Your task to perform on an android device: turn pop-ups on in chrome Image 0: 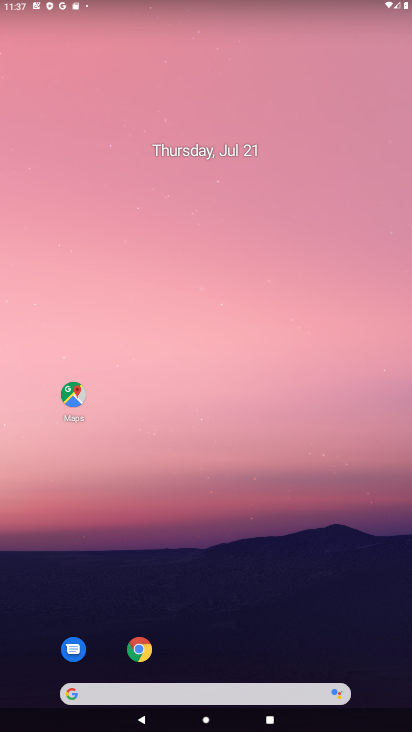
Step 0: click (136, 645)
Your task to perform on an android device: turn pop-ups on in chrome Image 1: 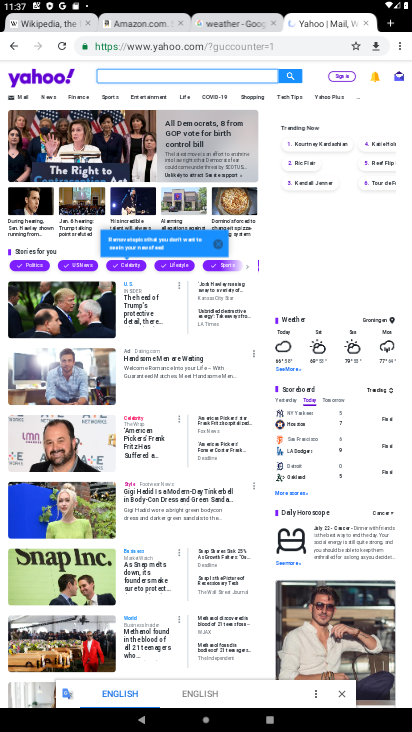
Step 1: click (401, 49)
Your task to perform on an android device: turn pop-ups on in chrome Image 2: 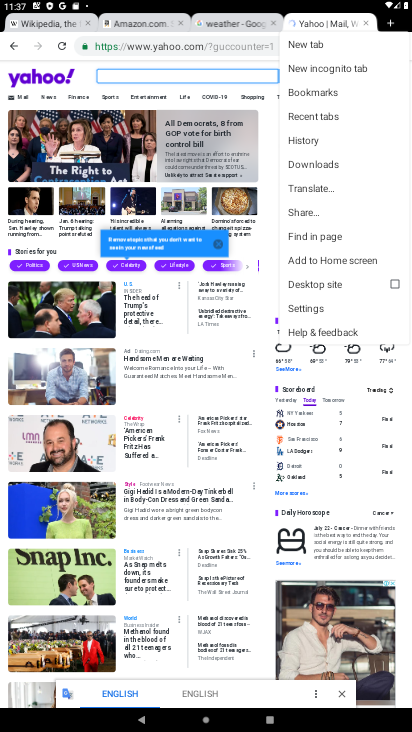
Step 2: click (305, 304)
Your task to perform on an android device: turn pop-ups on in chrome Image 3: 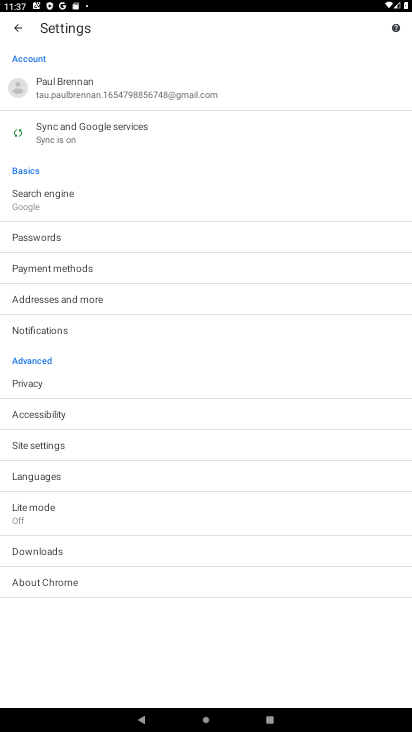
Step 3: click (40, 444)
Your task to perform on an android device: turn pop-ups on in chrome Image 4: 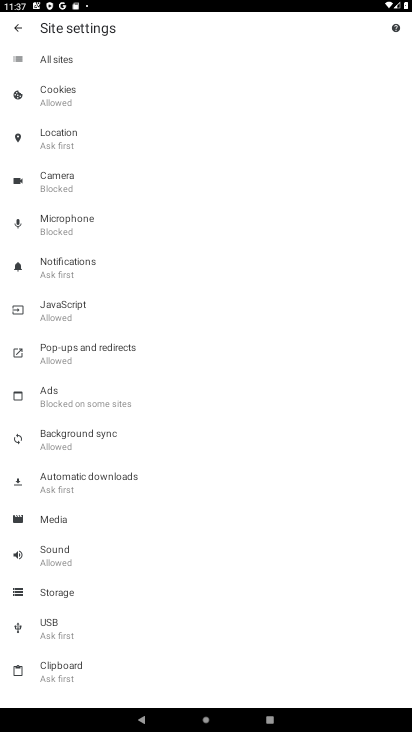
Step 4: click (69, 347)
Your task to perform on an android device: turn pop-ups on in chrome Image 5: 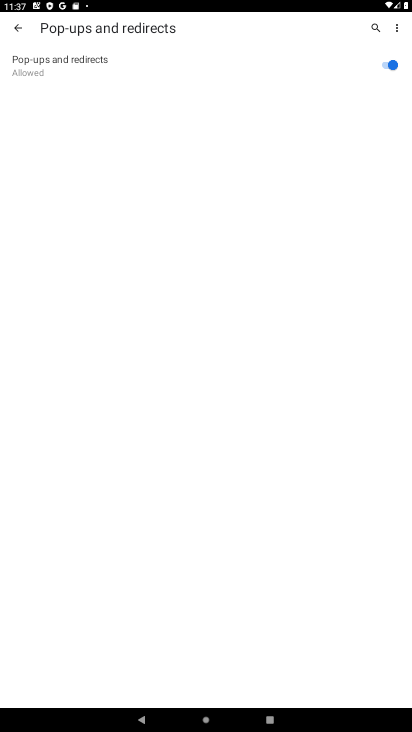
Step 5: task complete